Your task to perform on an android device: open app "Fetch Rewards" (install if not already installed) Image 0: 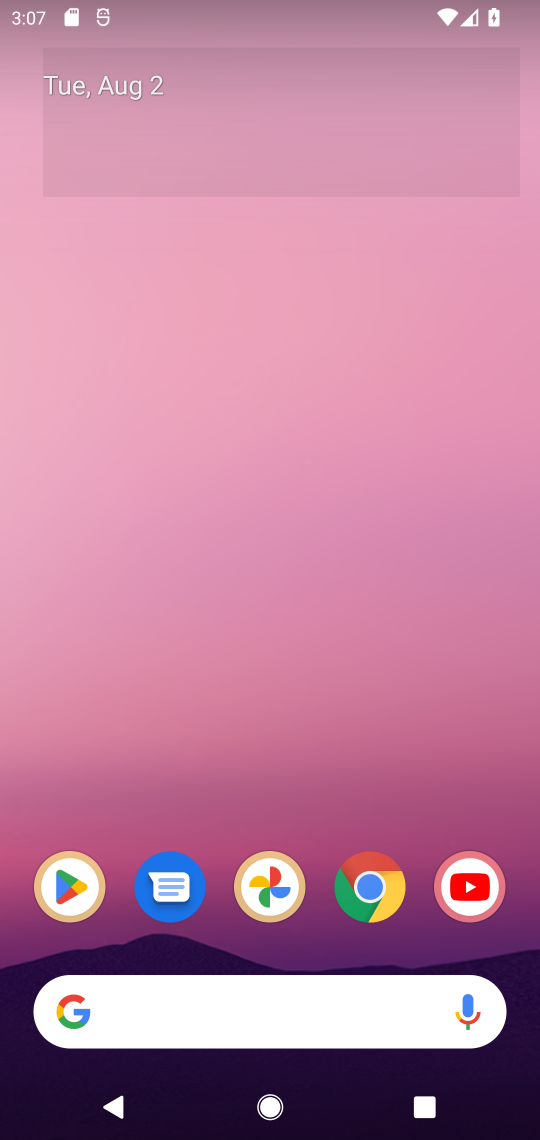
Step 0: click (75, 892)
Your task to perform on an android device: open app "Fetch Rewards" (install if not already installed) Image 1: 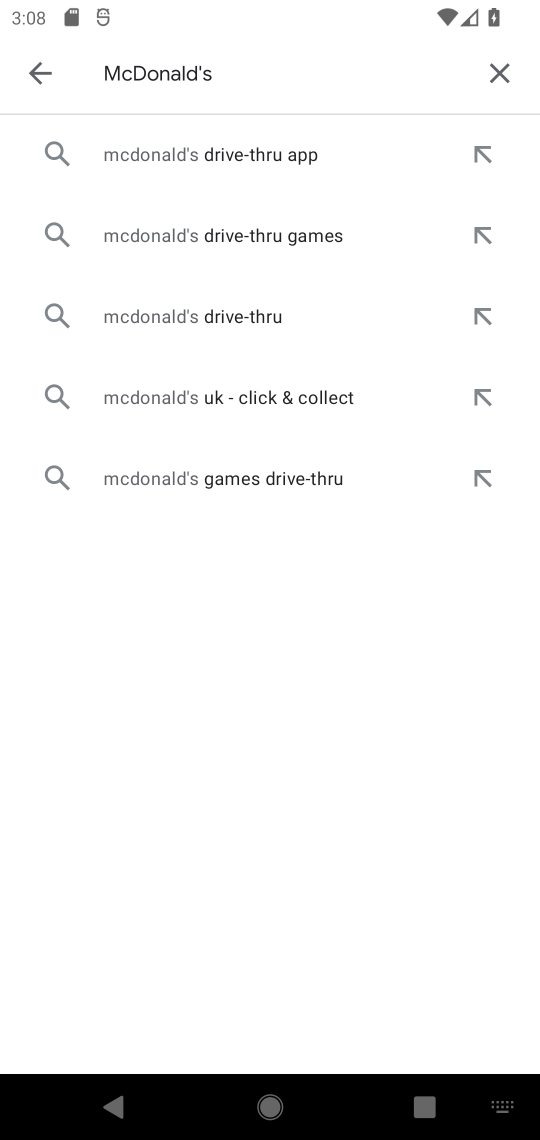
Step 1: task complete